Your task to perform on an android device: turn off data saver in the chrome app Image 0: 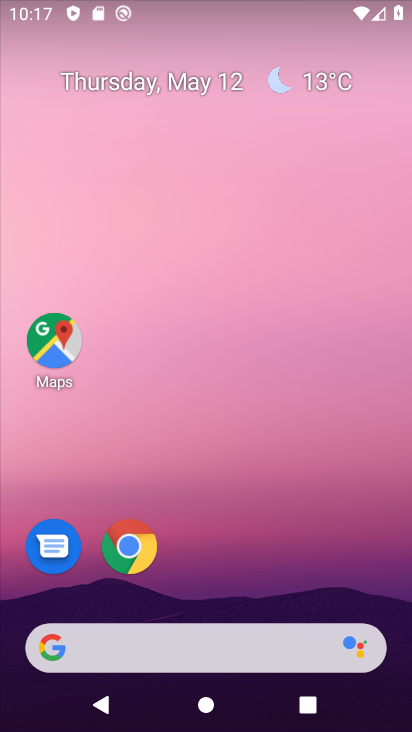
Step 0: drag from (293, 673) to (325, 46)
Your task to perform on an android device: turn off data saver in the chrome app Image 1: 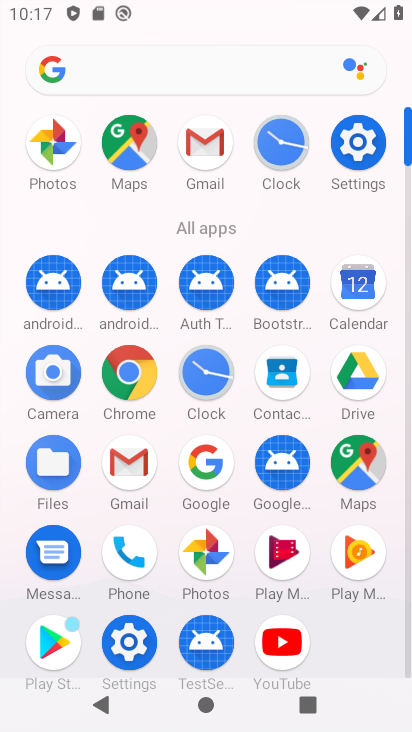
Step 1: click (113, 371)
Your task to perform on an android device: turn off data saver in the chrome app Image 2: 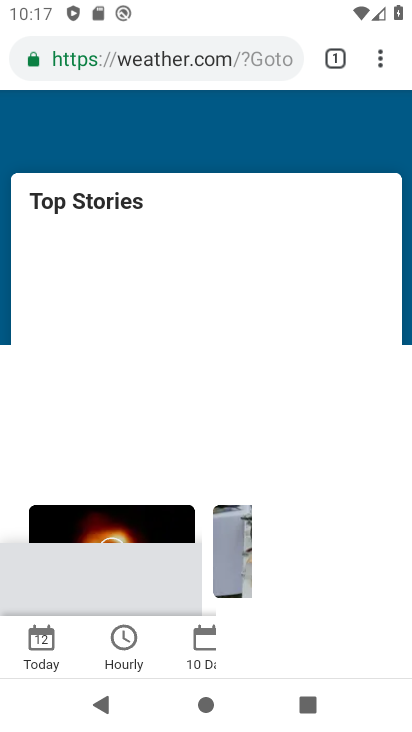
Step 2: click (329, 66)
Your task to perform on an android device: turn off data saver in the chrome app Image 3: 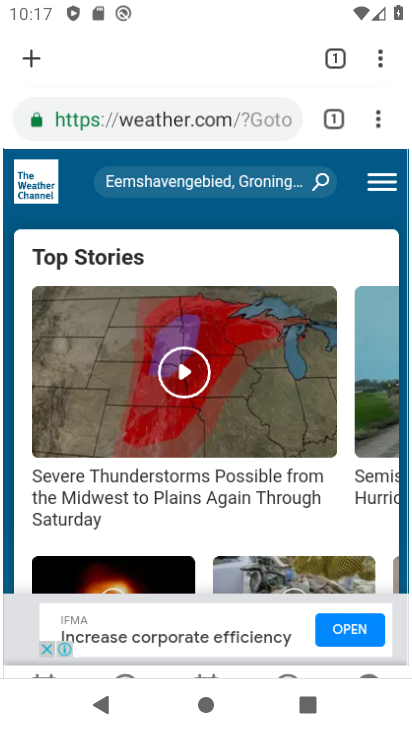
Step 3: click (333, 56)
Your task to perform on an android device: turn off data saver in the chrome app Image 4: 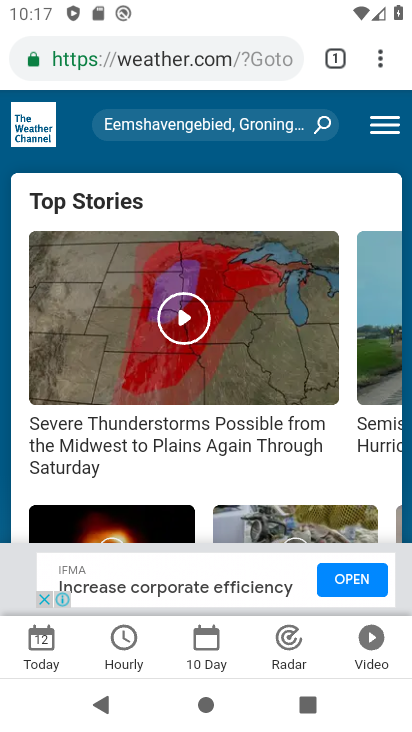
Step 4: click (321, 55)
Your task to perform on an android device: turn off data saver in the chrome app Image 5: 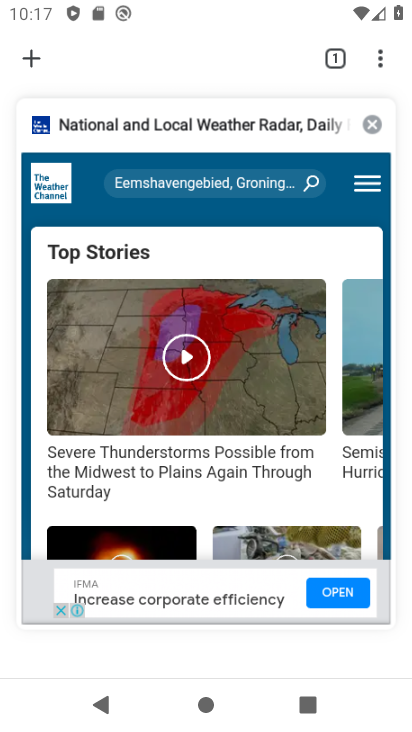
Step 5: click (30, 67)
Your task to perform on an android device: turn off data saver in the chrome app Image 6: 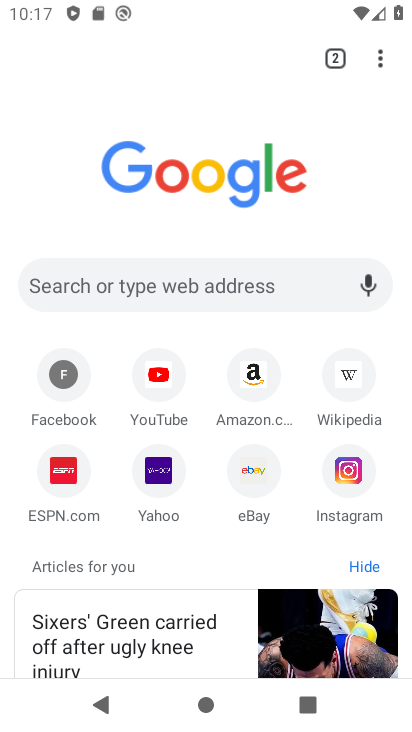
Step 6: click (378, 65)
Your task to perform on an android device: turn off data saver in the chrome app Image 7: 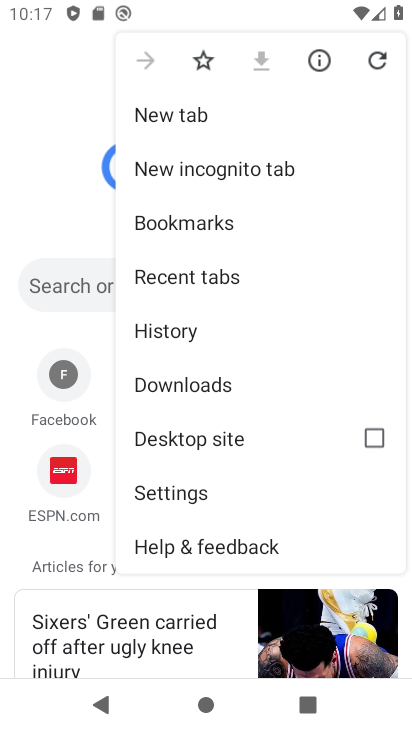
Step 7: click (169, 488)
Your task to perform on an android device: turn off data saver in the chrome app Image 8: 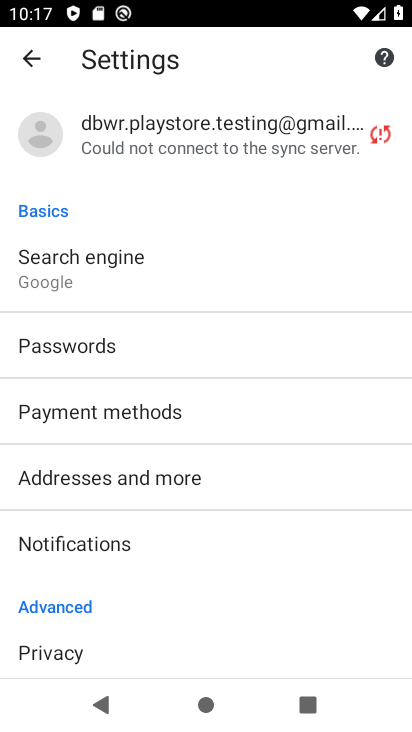
Step 8: drag from (155, 631) to (246, 273)
Your task to perform on an android device: turn off data saver in the chrome app Image 9: 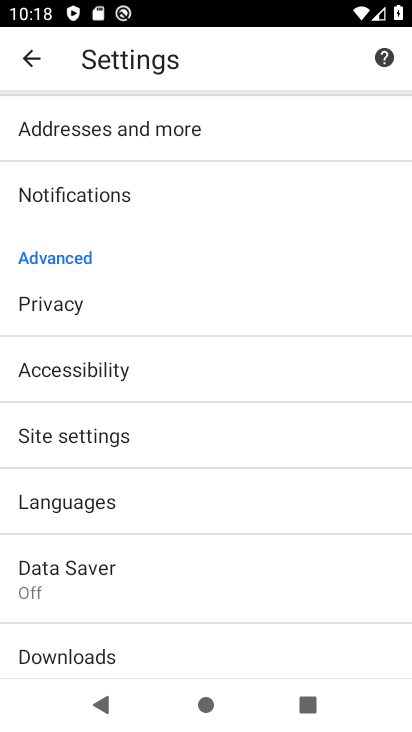
Step 9: drag from (169, 596) to (234, 445)
Your task to perform on an android device: turn off data saver in the chrome app Image 10: 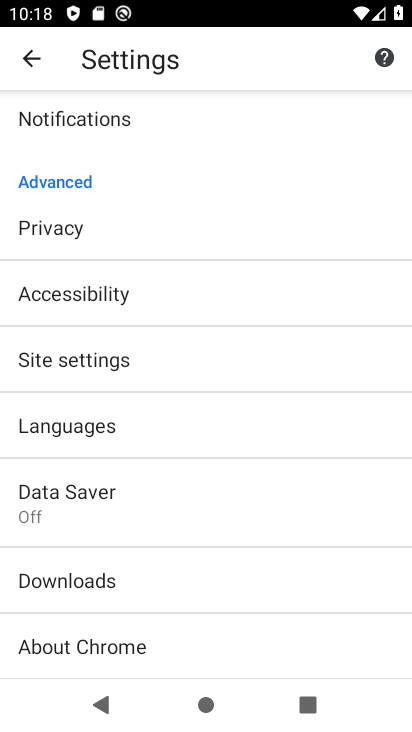
Step 10: click (137, 504)
Your task to perform on an android device: turn off data saver in the chrome app Image 11: 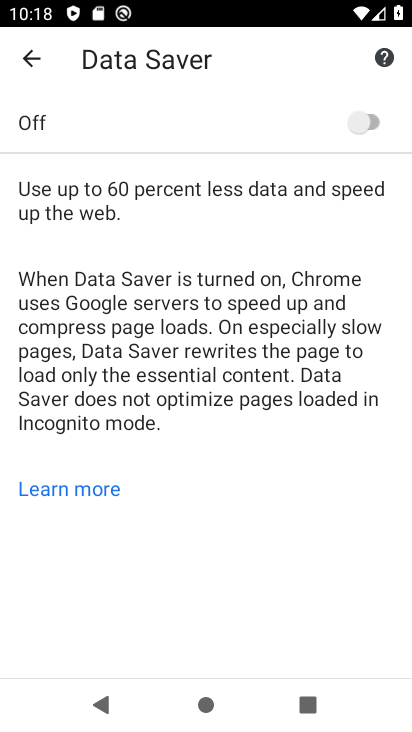
Step 11: click (366, 118)
Your task to perform on an android device: turn off data saver in the chrome app Image 12: 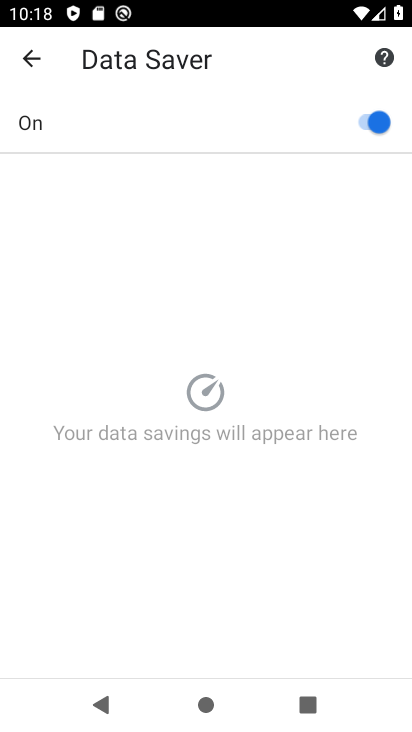
Step 12: click (347, 119)
Your task to perform on an android device: turn off data saver in the chrome app Image 13: 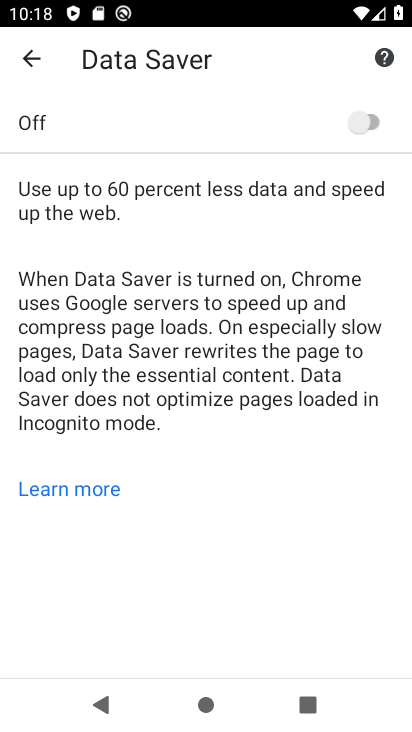
Step 13: task complete